Your task to perform on an android device: open wifi settings Image 0: 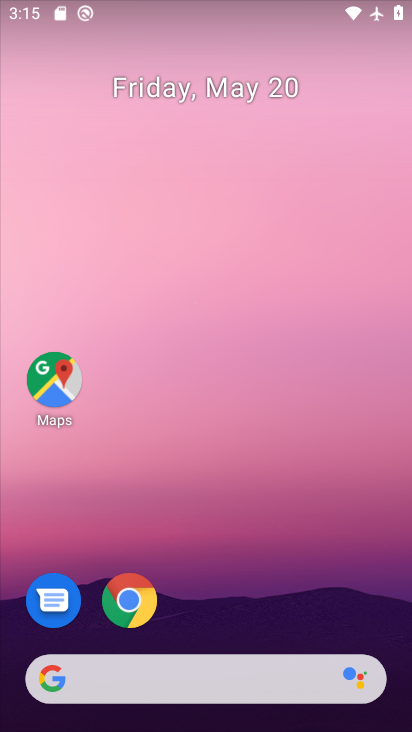
Step 0: drag from (304, 395) to (198, 80)
Your task to perform on an android device: open wifi settings Image 1: 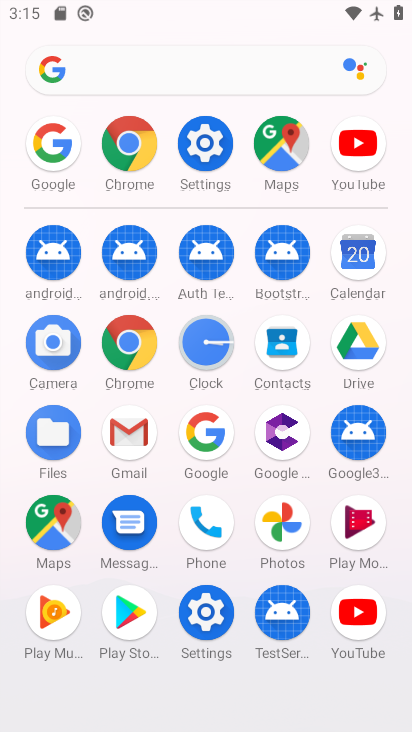
Step 1: click (204, 150)
Your task to perform on an android device: open wifi settings Image 2: 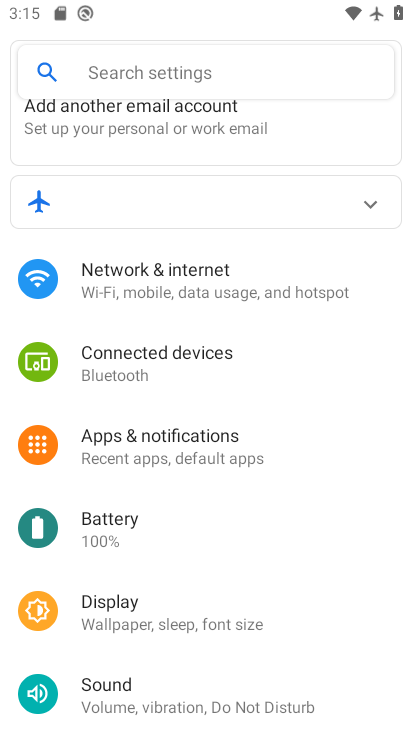
Step 2: click (207, 279)
Your task to perform on an android device: open wifi settings Image 3: 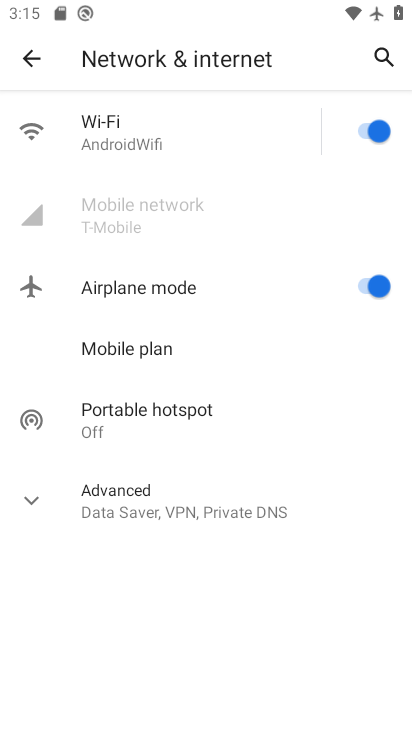
Step 3: click (239, 124)
Your task to perform on an android device: open wifi settings Image 4: 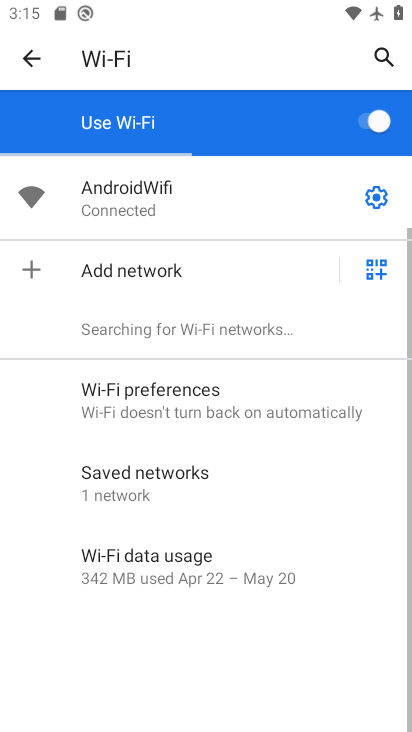
Step 4: task complete